Your task to perform on an android device: set an alarm Image 0: 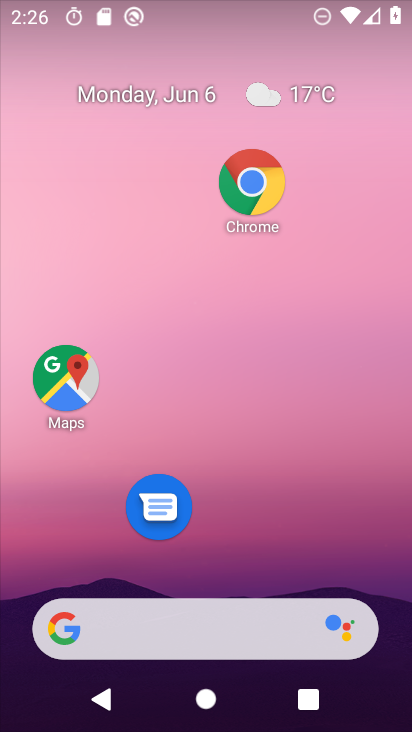
Step 0: drag from (270, 627) to (216, 184)
Your task to perform on an android device: set an alarm Image 1: 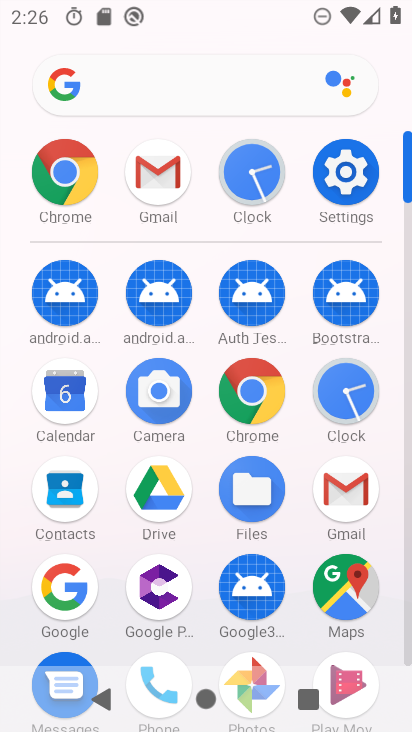
Step 1: click (350, 404)
Your task to perform on an android device: set an alarm Image 2: 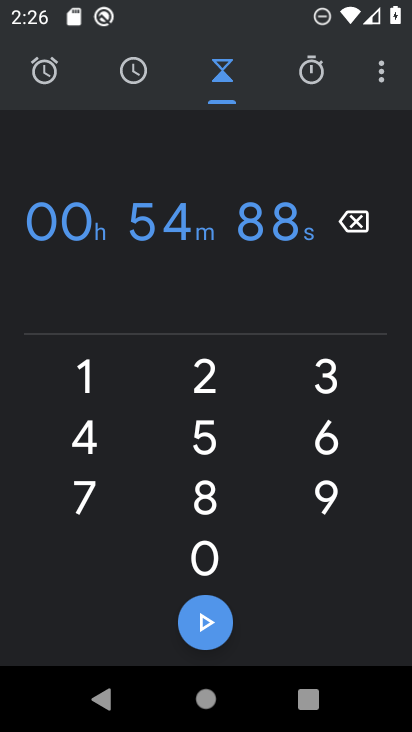
Step 2: click (27, 78)
Your task to perform on an android device: set an alarm Image 3: 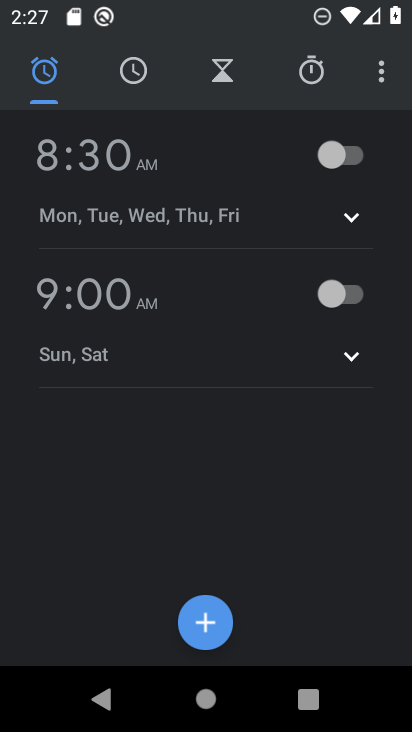
Step 3: click (337, 307)
Your task to perform on an android device: set an alarm Image 4: 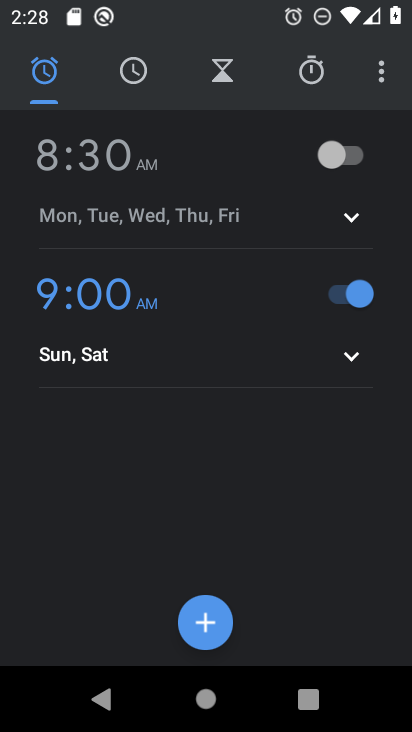
Step 4: task complete